Your task to perform on an android device: Open Chrome and go to settings Image 0: 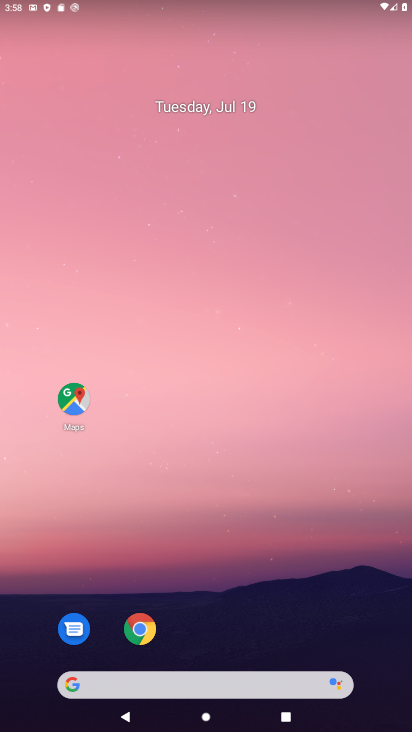
Step 0: drag from (337, 499) to (222, 92)
Your task to perform on an android device: Open Chrome and go to settings Image 1: 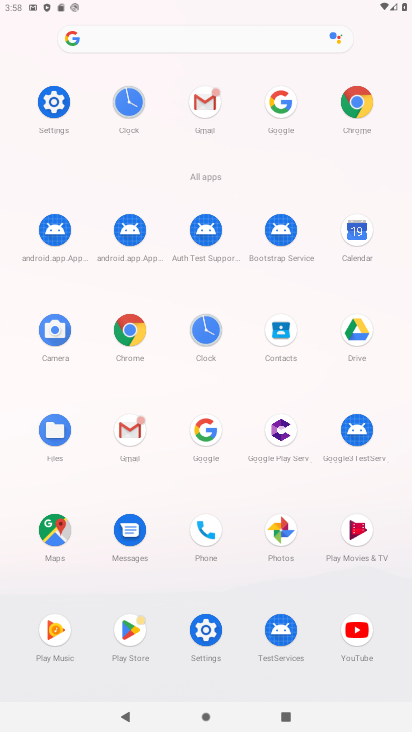
Step 1: click (350, 106)
Your task to perform on an android device: Open Chrome and go to settings Image 2: 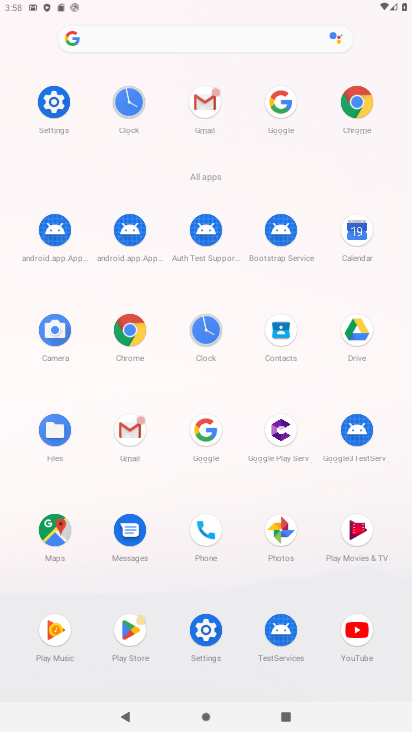
Step 2: click (351, 104)
Your task to perform on an android device: Open Chrome and go to settings Image 3: 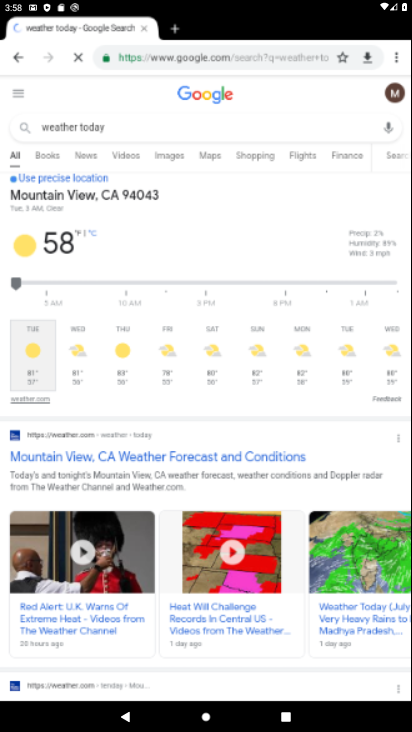
Step 3: click (351, 104)
Your task to perform on an android device: Open Chrome and go to settings Image 4: 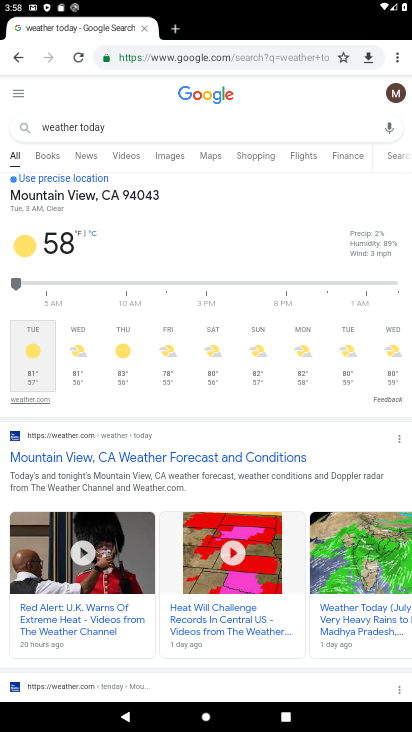
Step 4: drag from (396, 56) to (283, 354)
Your task to perform on an android device: Open Chrome and go to settings Image 5: 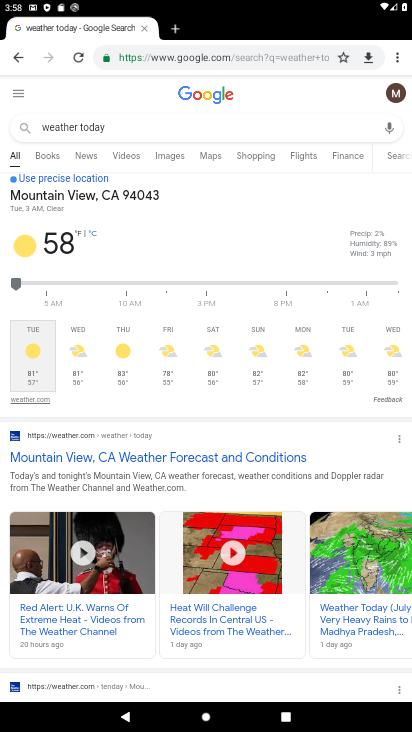
Step 5: click (283, 354)
Your task to perform on an android device: Open Chrome and go to settings Image 6: 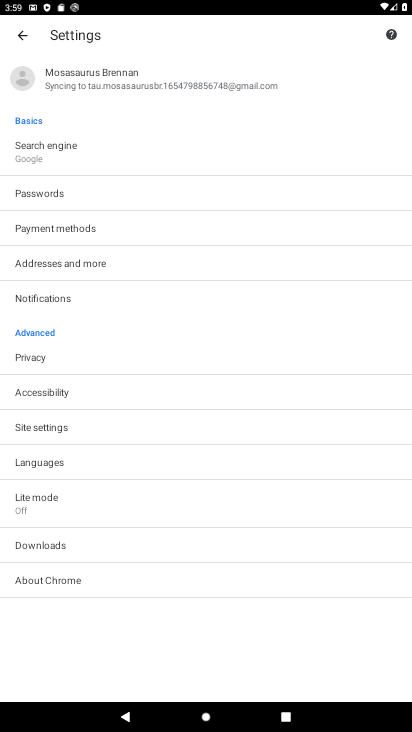
Step 6: task complete